Your task to perform on an android device: empty trash in the gmail app Image 0: 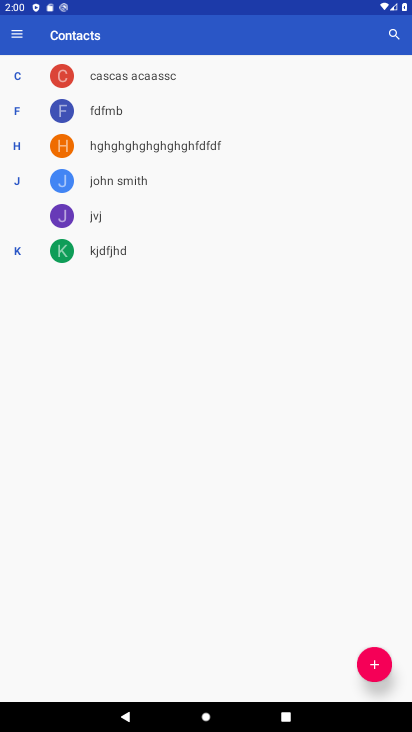
Step 0: press home button
Your task to perform on an android device: empty trash in the gmail app Image 1: 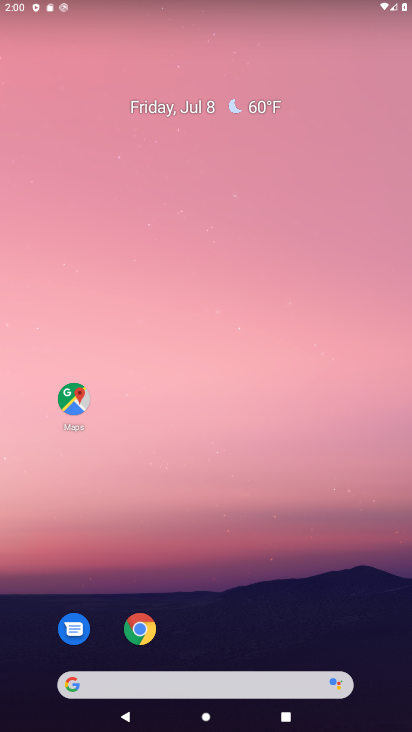
Step 1: drag from (213, 605) to (212, 185)
Your task to perform on an android device: empty trash in the gmail app Image 2: 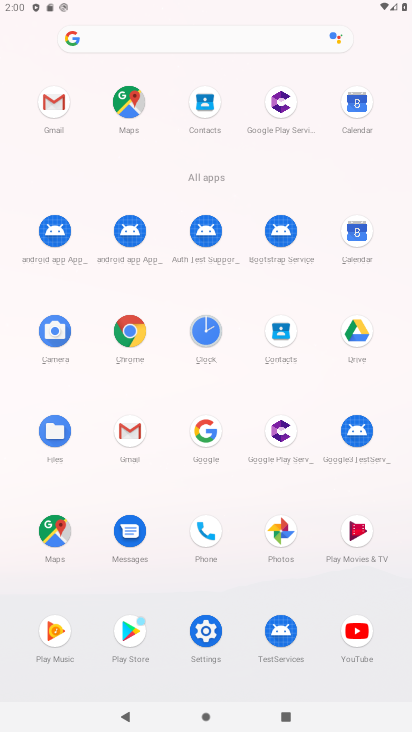
Step 2: click (59, 105)
Your task to perform on an android device: empty trash in the gmail app Image 3: 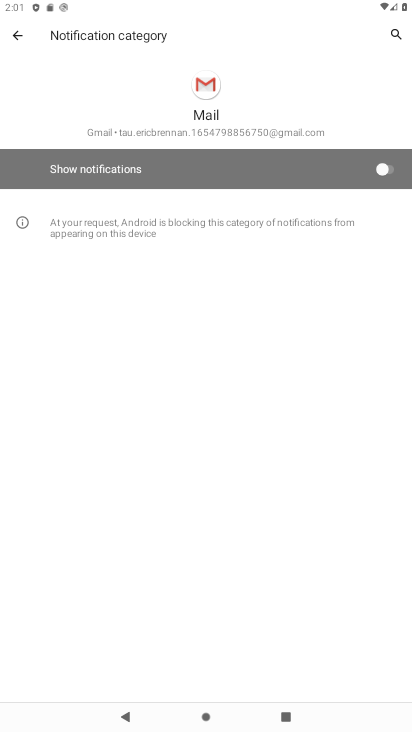
Step 3: click (18, 39)
Your task to perform on an android device: empty trash in the gmail app Image 4: 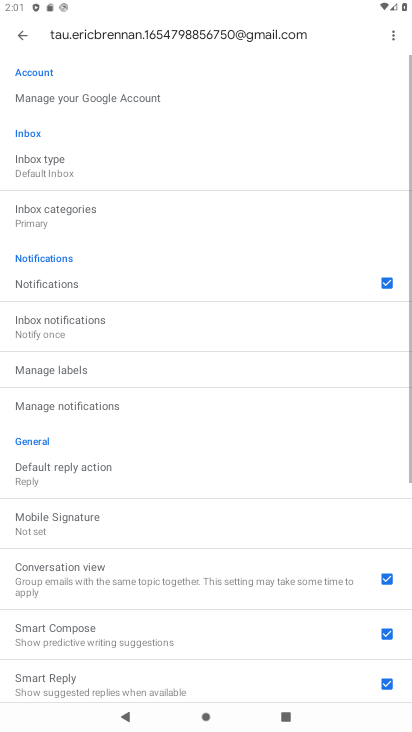
Step 4: click (18, 39)
Your task to perform on an android device: empty trash in the gmail app Image 5: 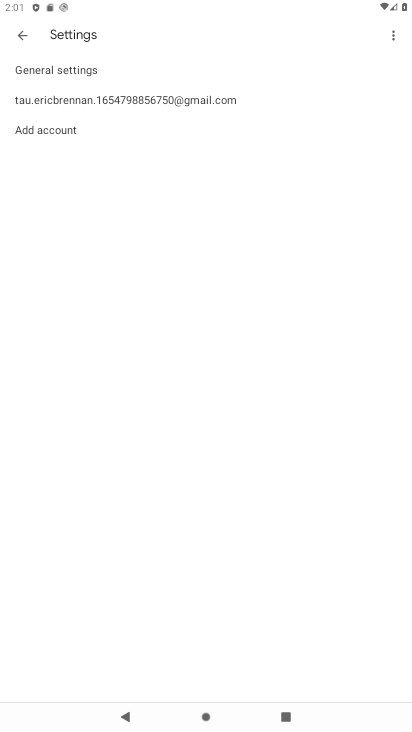
Step 5: click (18, 39)
Your task to perform on an android device: empty trash in the gmail app Image 6: 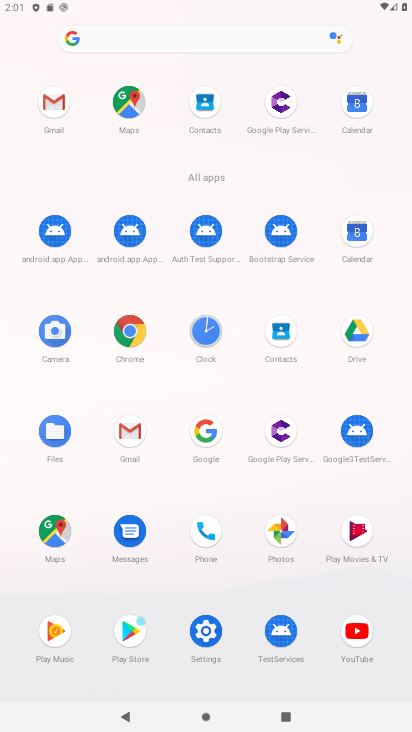
Step 6: click (45, 100)
Your task to perform on an android device: empty trash in the gmail app Image 7: 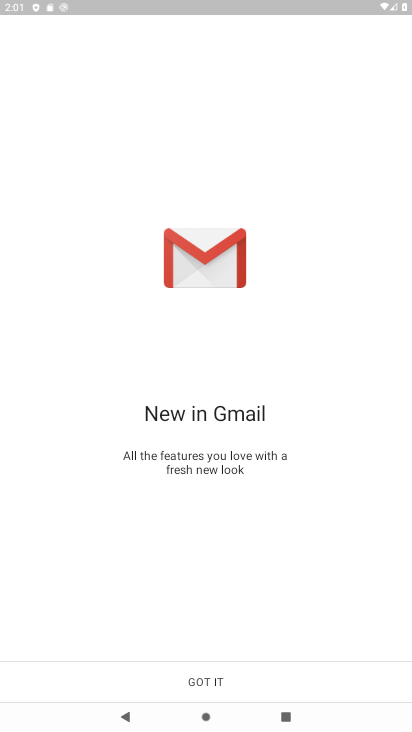
Step 7: click (196, 693)
Your task to perform on an android device: empty trash in the gmail app Image 8: 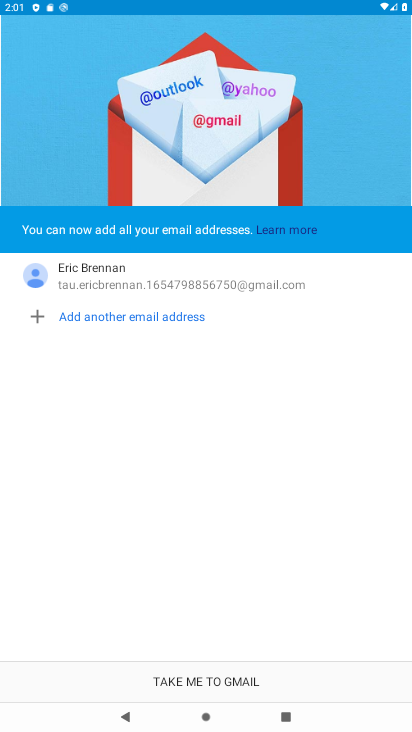
Step 8: click (196, 693)
Your task to perform on an android device: empty trash in the gmail app Image 9: 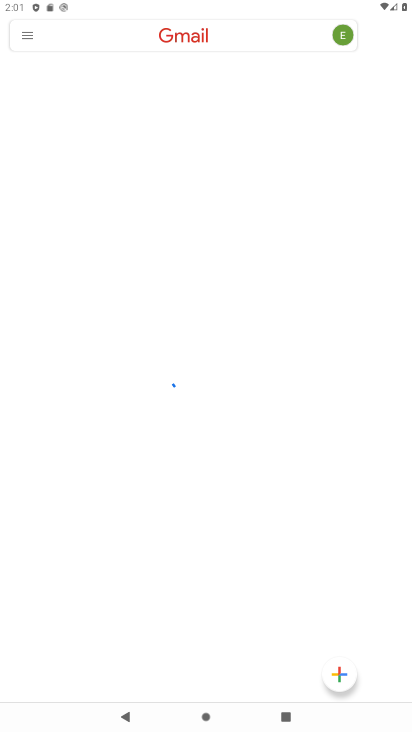
Step 9: click (16, 34)
Your task to perform on an android device: empty trash in the gmail app Image 10: 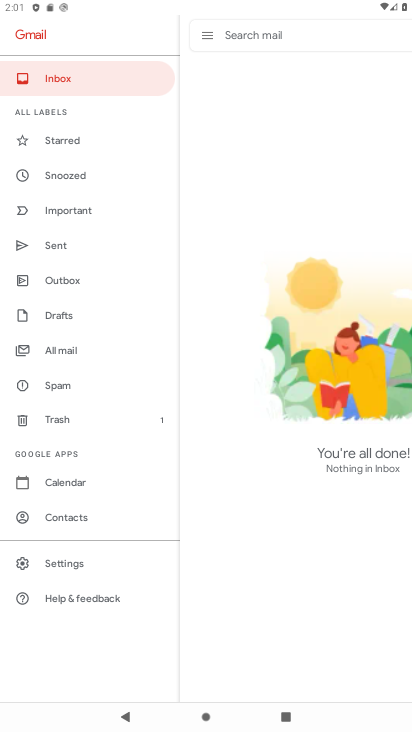
Step 10: click (62, 420)
Your task to perform on an android device: empty trash in the gmail app Image 11: 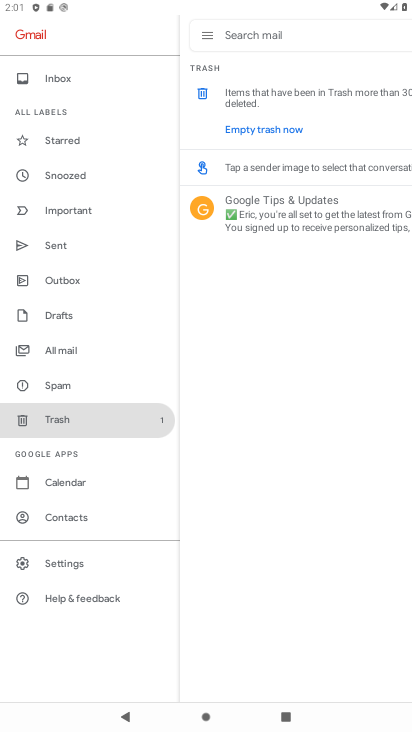
Step 11: click (261, 130)
Your task to perform on an android device: empty trash in the gmail app Image 12: 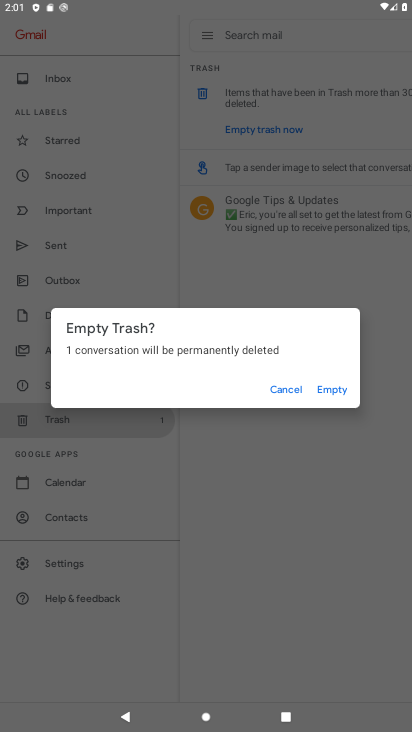
Step 12: click (325, 390)
Your task to perform on an android device: empty trash in the gmail app Image 13: 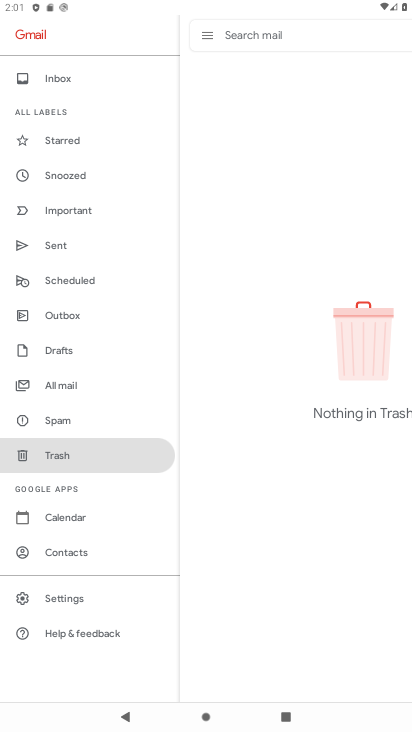
Step 13: task complete